Your task to perform on an android device: Open privacy settings Image 0: 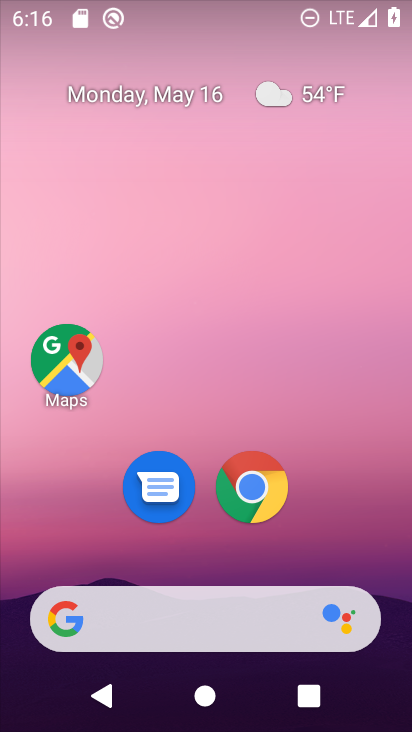
Step 0: drag from (203, 587) to (263, 166)
Your task to perform on an android device: Open privacy settings Image 1: 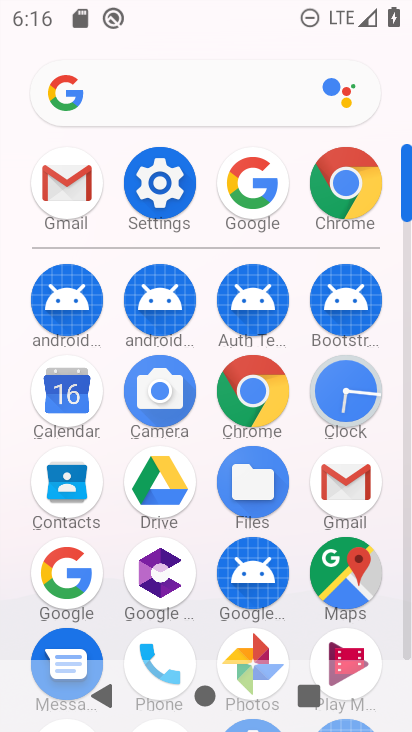
Step 1: click (171, 183)
Your task to perform on an android device: Open privacy settings Image 2: 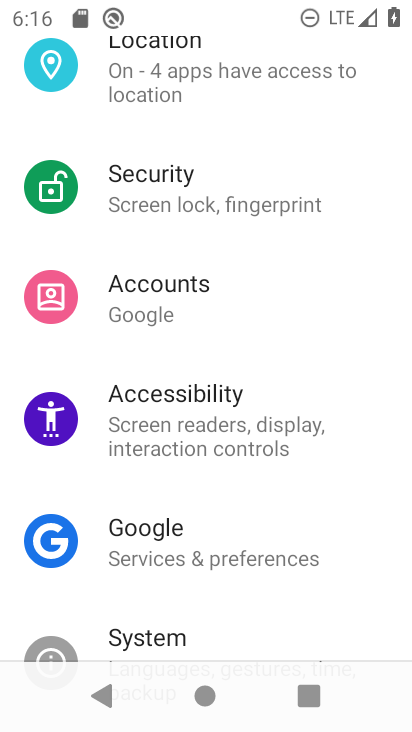
Step 2: drag from (187, 641) to (208, 376)
Your task to perform on an android device: Open privacy settings Image 3: 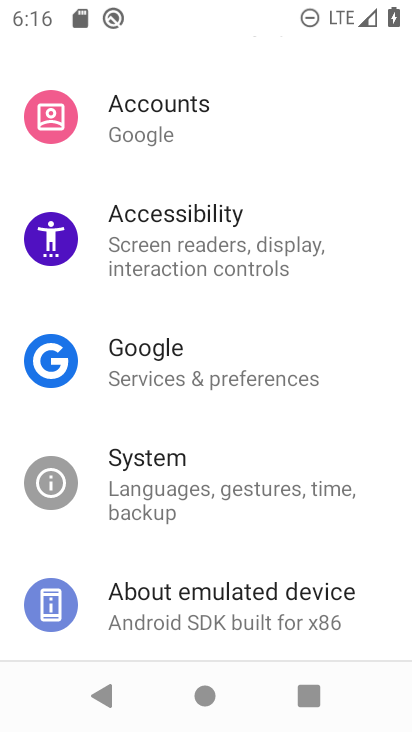
Step 3: drag from (182, 622) to (229, 210)
Your task to perform on an android device: Open privacy settings Image 4: 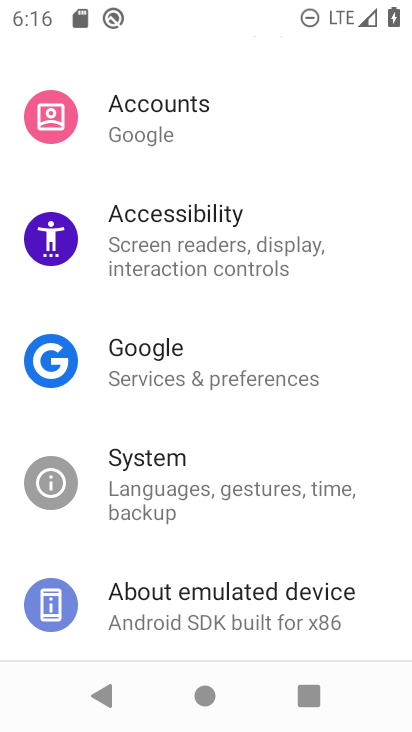
Step 4: drag from (189, 235) to (169, 585)
Your task to perform on an android device: Open privacy settings Image 5: 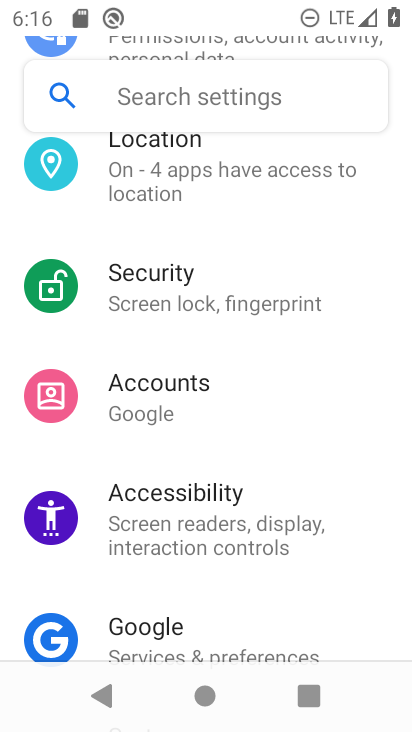
Step 5: drag from (205, 172) to (212, 493)
Your task to perform on an android device: Open privacy settings Image 6: 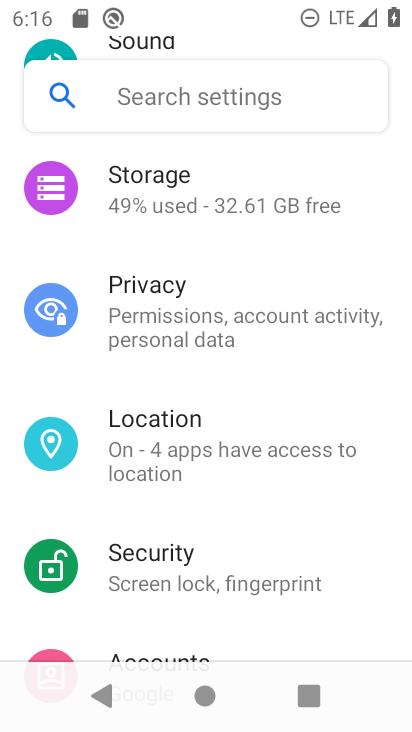
Step 6: click (179, 316)
Your task to perform on an android device: Open privacy settings Image 7: 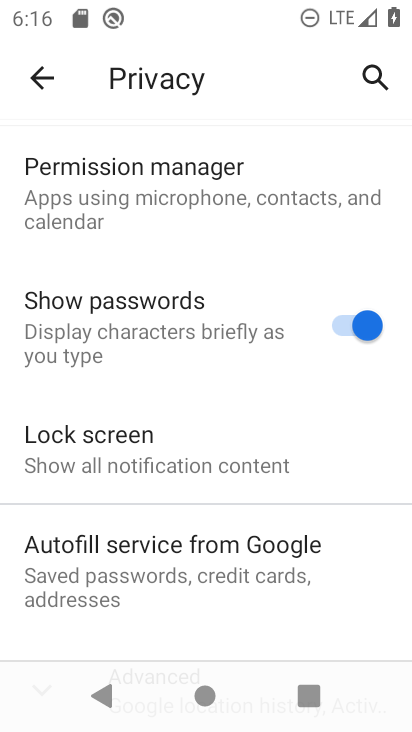
Step 7: drag from (193, 610) to (215, 360)
Your task to perform on an android device: Open privacy settings Image 8: 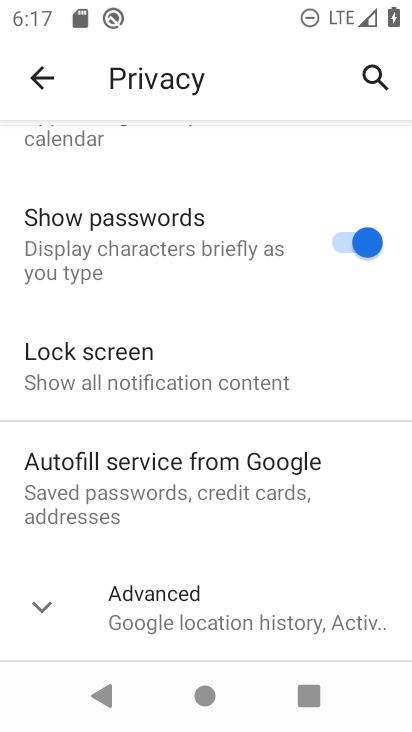
Step 8: click (171, 606)
Your task to perform on an android device: Open privacy settings Image 9: 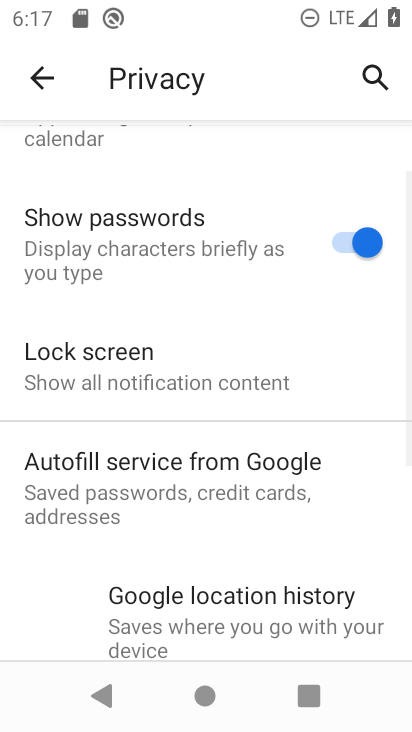
Step 9: task complete